Your task to perform on an android device: Go to network settings Image 0: 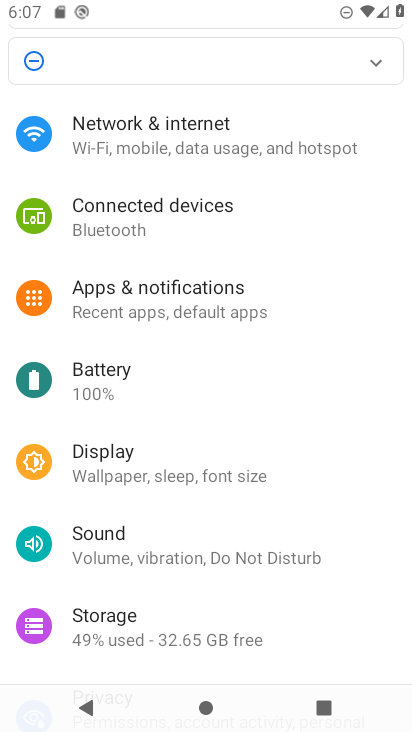
Step 0: click (184, 123)
Your task to perform on an android device: Go to network settings Image 1: 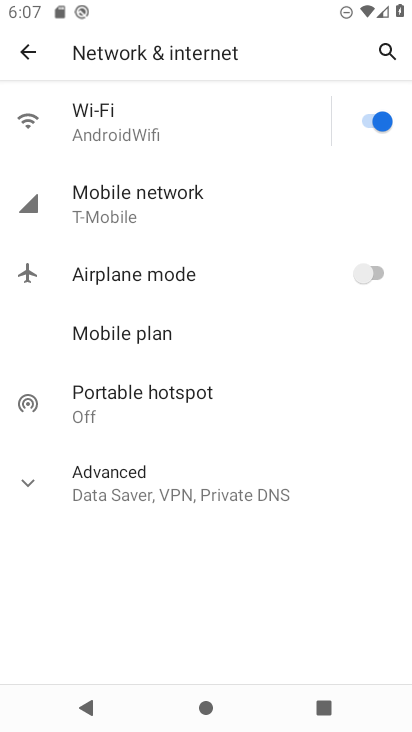
Step 1: click (207, 139)
Your task to perform on an android device: Go to network settings Image 2: 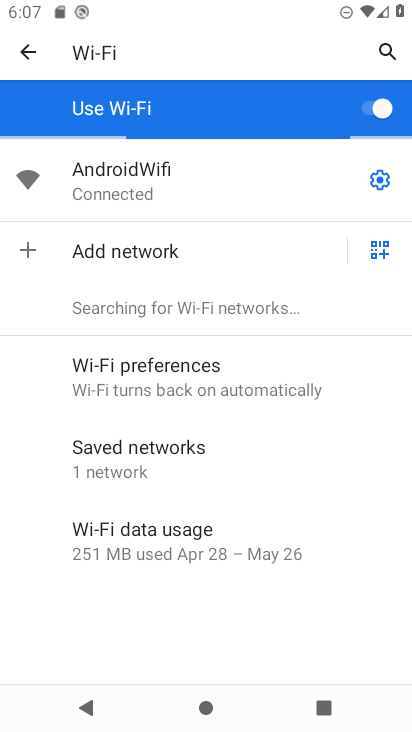
Step 2: task complete